Your task to perform on an android device: Go to Wikipedia Image 0: 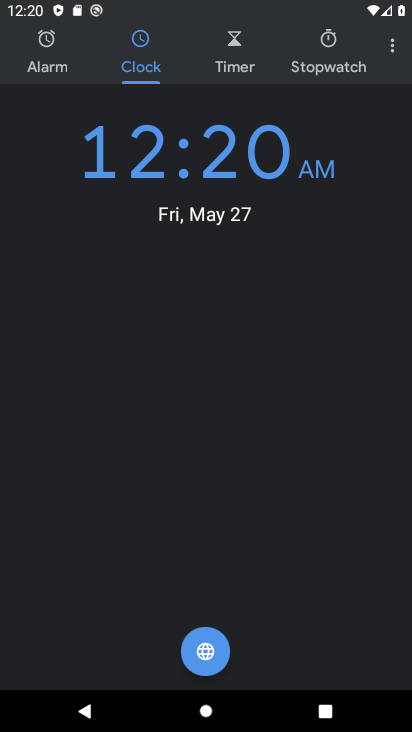
Step 0: press home button
Your task to perform on an android device: Go to Wikipedia Image 1: 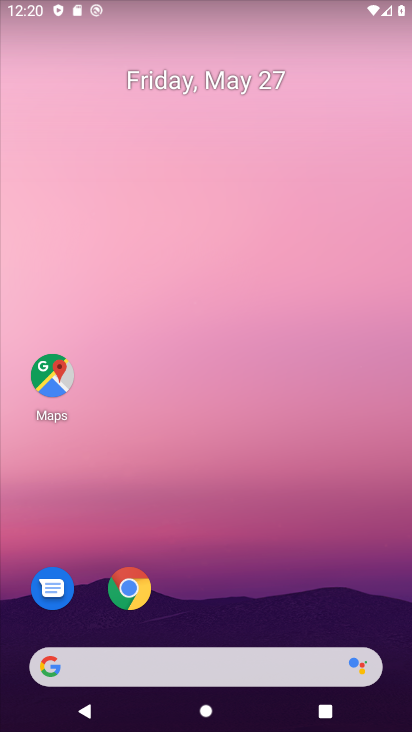
Step 1: click (112, 596)
Your task to perform on an android device: Go to Wikipedia Image 2: 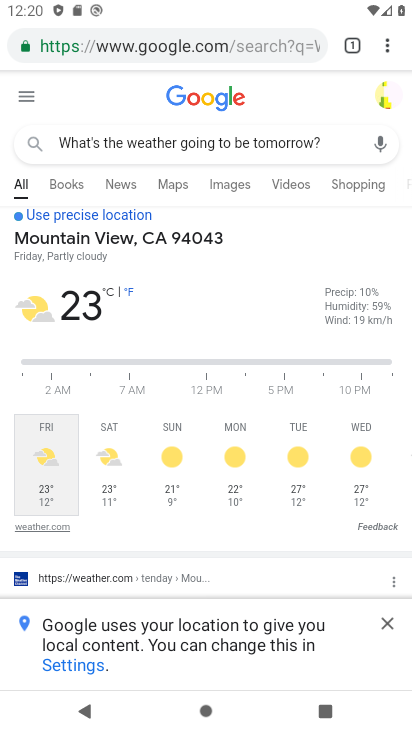
Step 2: drag from (383, 55) to (279, 89)
Your task to perform on an android device: Go to Wikipedia Image 3: 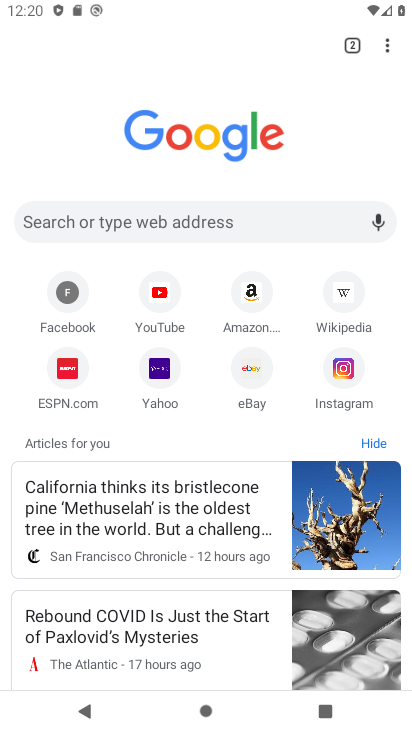
Step 3: click (342, 311)
Your task to perform on an android device: Go to Wikipedia Image 4: 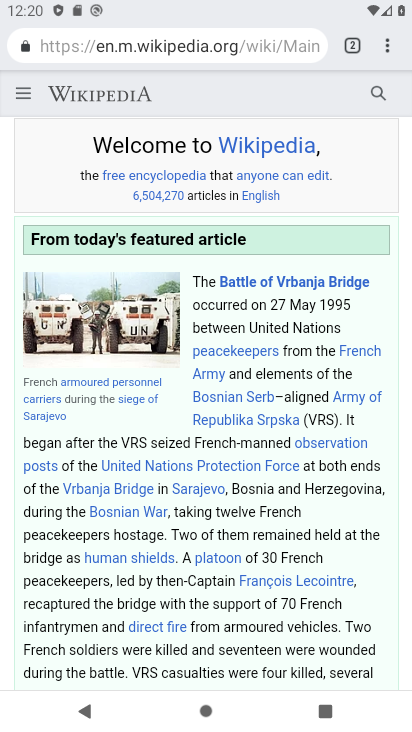
Step 4: task complete